Your task to perform on an android device: clear history in the chrome app Image 0: 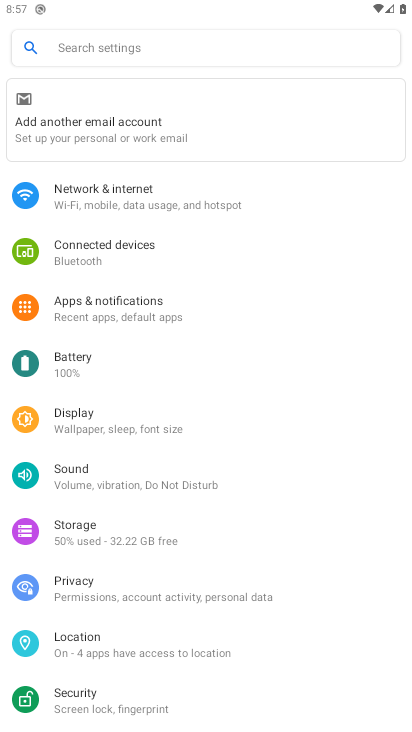
Step 0: press home button
Your task to perform on an android device: clear history in the chrome app Image 1: 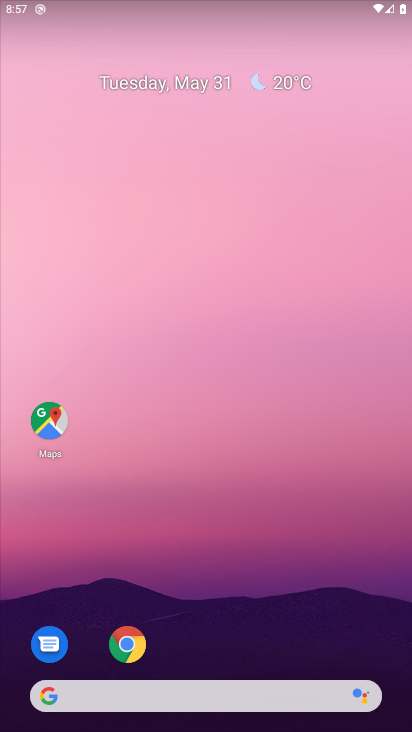
Step 1: click (125, 641)
Your task to perform on an android device: clear history in the chrome app Image 2: 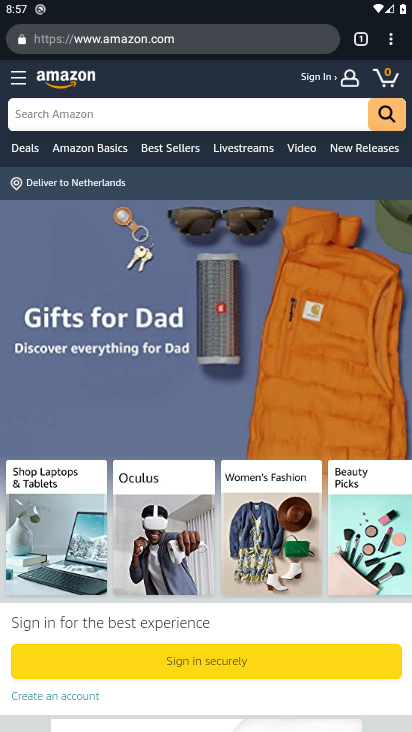
Step 2: click (384, 36)
Your task to perform on an android device: clear history in the chrome app Image 3: 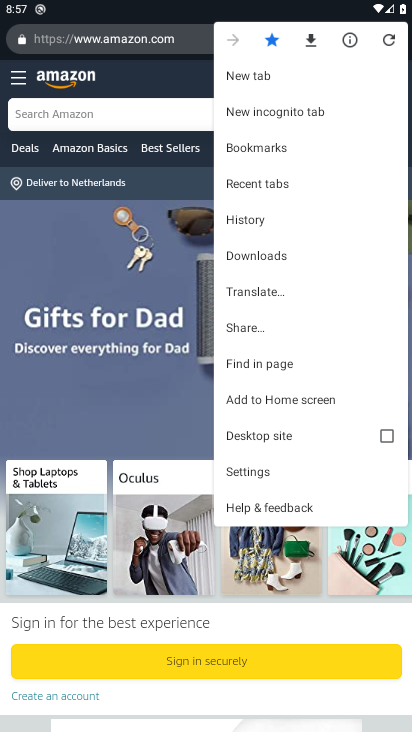
Step 3: click (268, 219)
Your task to perform on an android device: clear history in the chrome app Image 4: 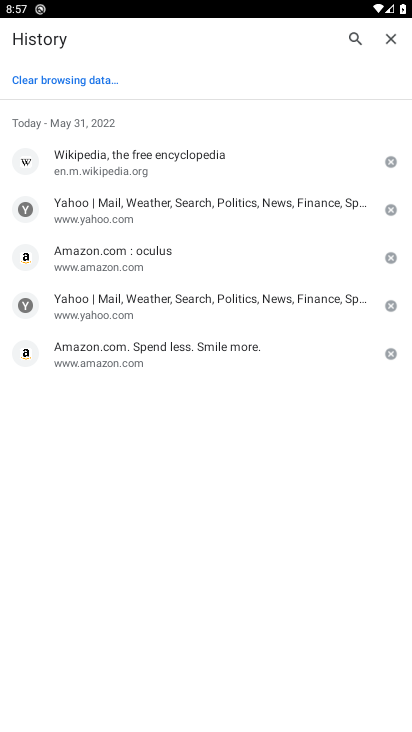
Step 4: click (54, 74)
Your task to perform on an android device: clear history in the chrome app Image 5: 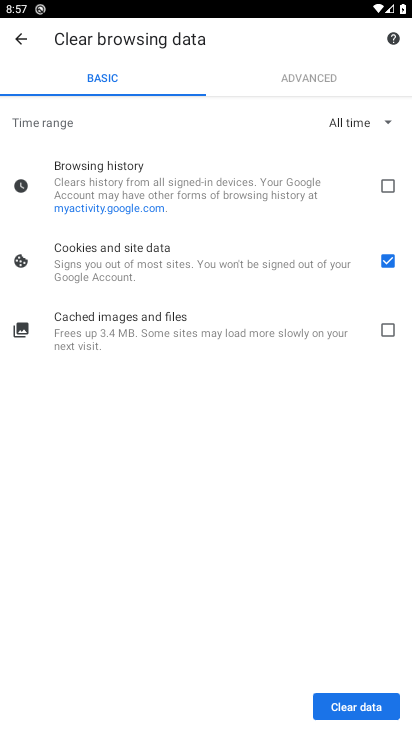
Step 5: click (389, 179)
Your task to perform on an android device: clear history in the chrome app Image 6: 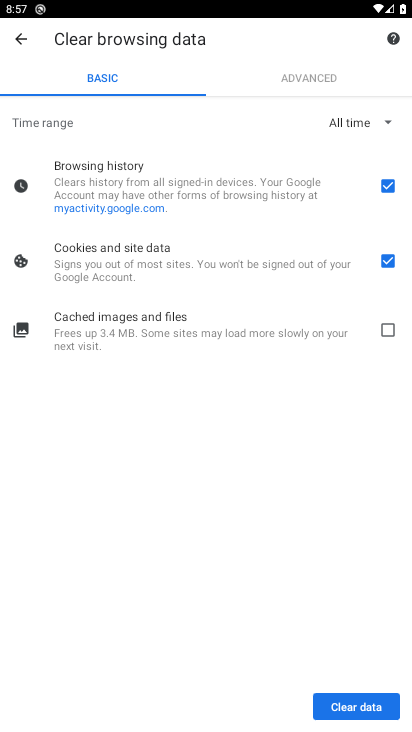
Step 6: click (394, 324)
Your task to perform on an android device: clear history in the chrome app Image 7: 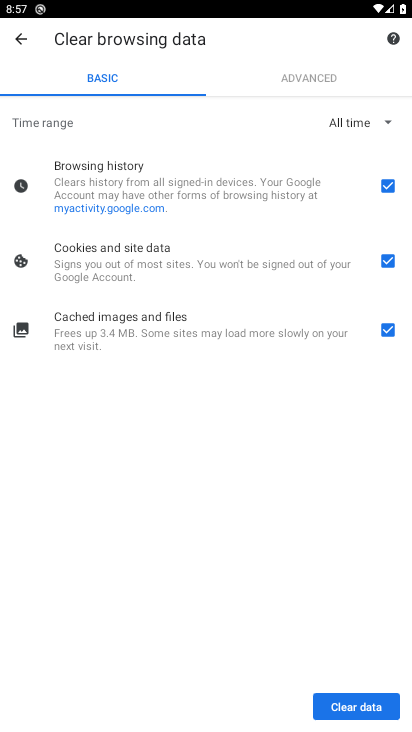
Step 7: click (360, 694)
Your task to perform on an android device: clear history in the chrome app Image 8: 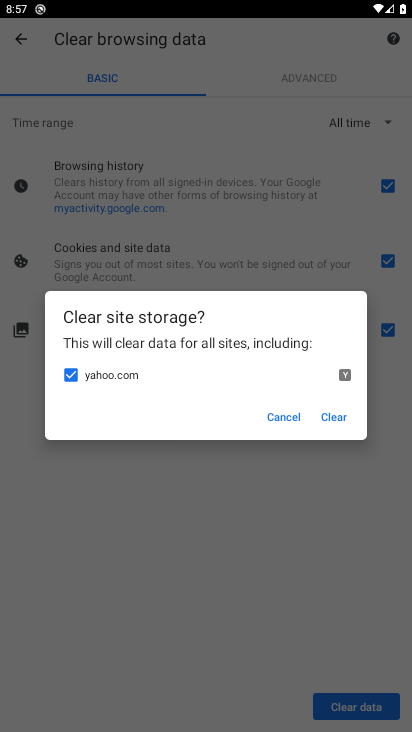
Step 8: click (327, 417)
Your task to perform on an android device: clear history in the chrome app Image 9: 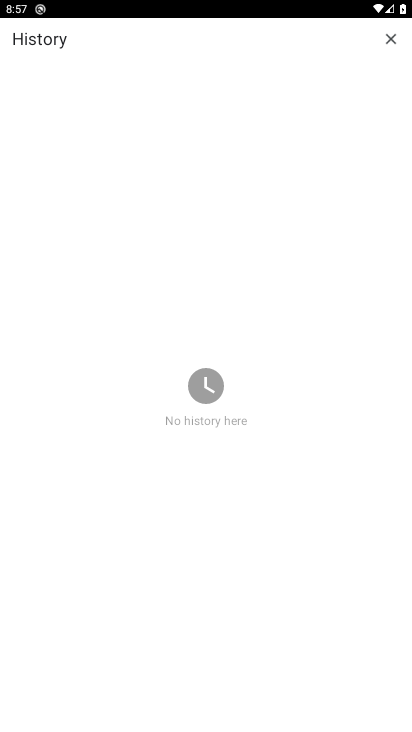
Step 9: task complete